Your task to perform on an android device: check android version Image 0: 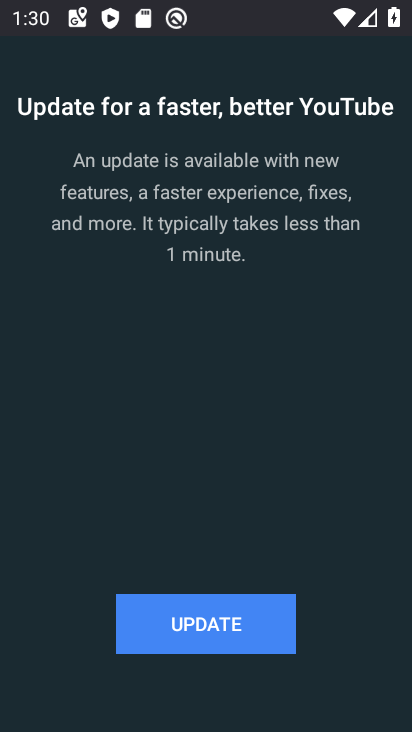
Step 0: press home button
Your task to perform on an android device: check android version Image 1: 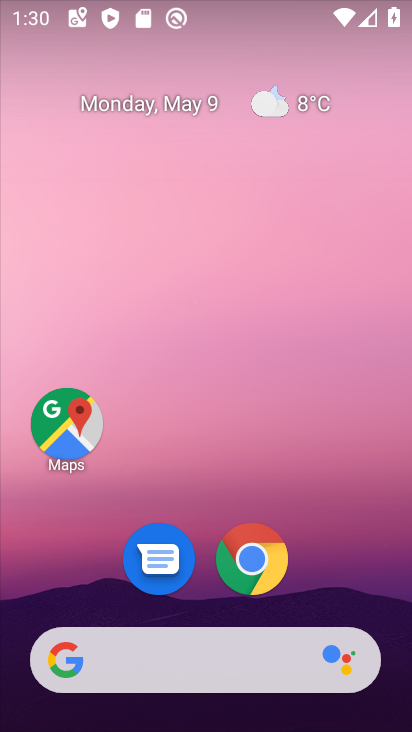
Step 1: drag from (315, 564) to (211, 176)
Your task to perform on an android device: check android version Image 2: 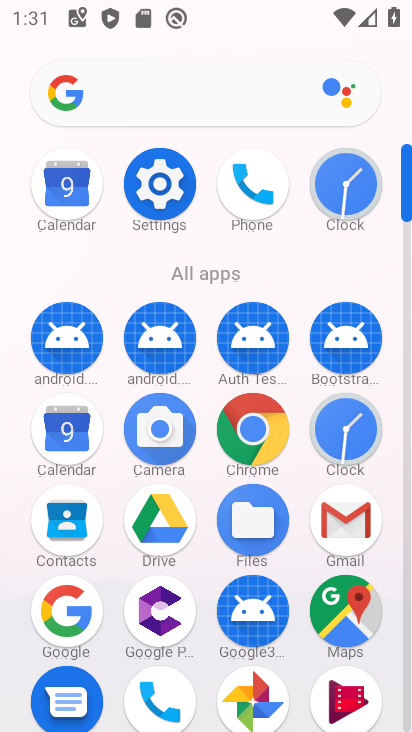
Step 2: click (177, 190)
Your task to perform on an android device: check android version Image 3: 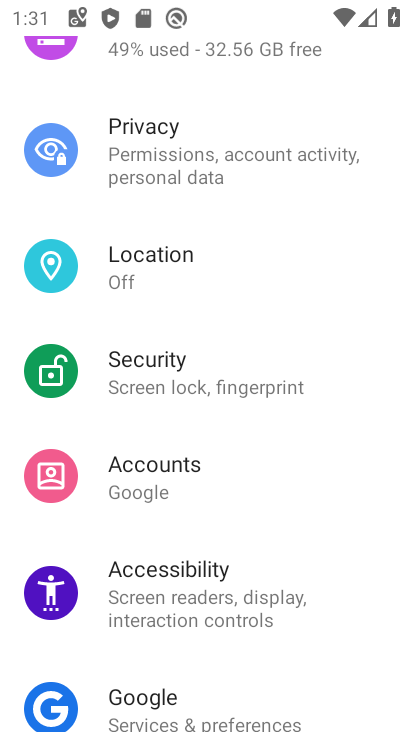
Step 3: drag from (207, 532) to (164, 125)
Your task to perform on an android device: check android version Image 4: 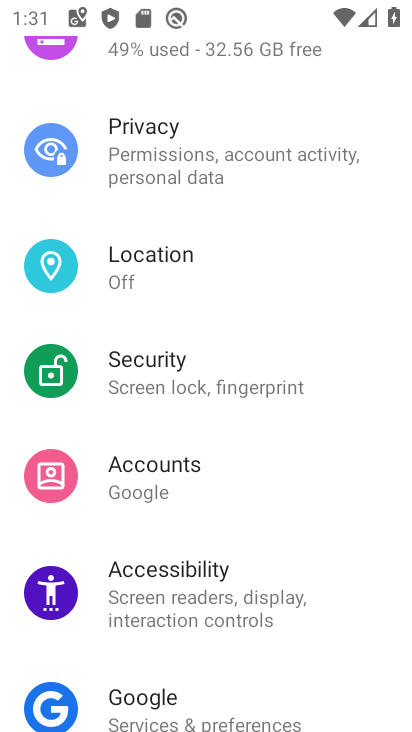
Step 4: drag from (218, 502) to (208, 155)
Your task to perform on an android device: check android version Image 5: 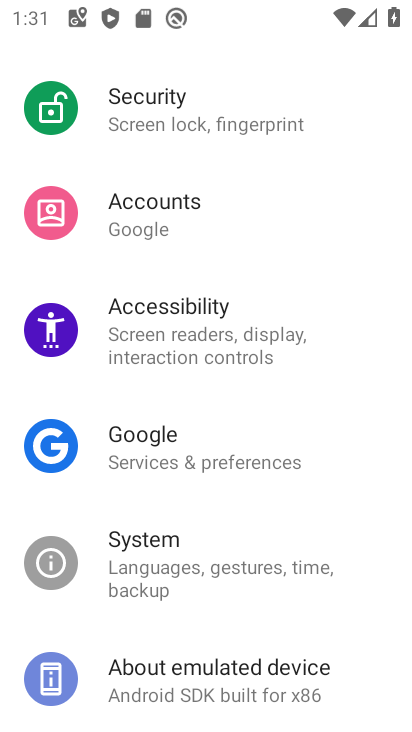
Step 5: click (180, 670)
Your task to perform on an android device: check android version Image 6: 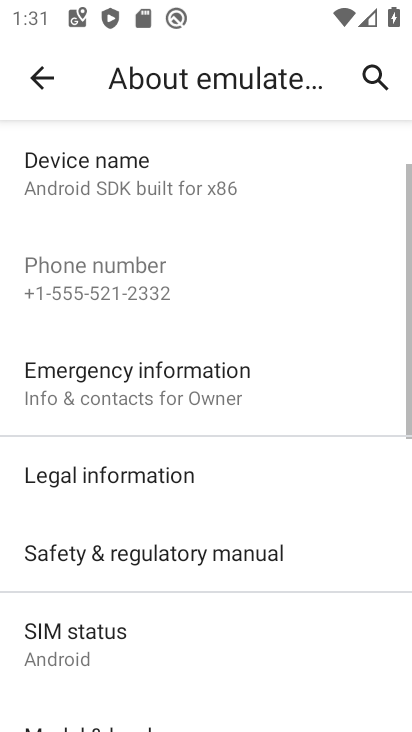
Step 6: task complete